Your task to perform on an android device: Go to Yahoo.com Image 0: 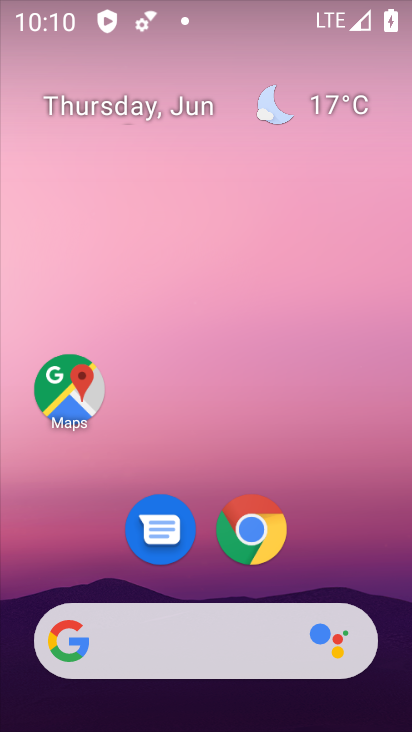
Step 0: click (243, 532)
Your task to perform on an android device: Go to Yahoo.com Image 1: 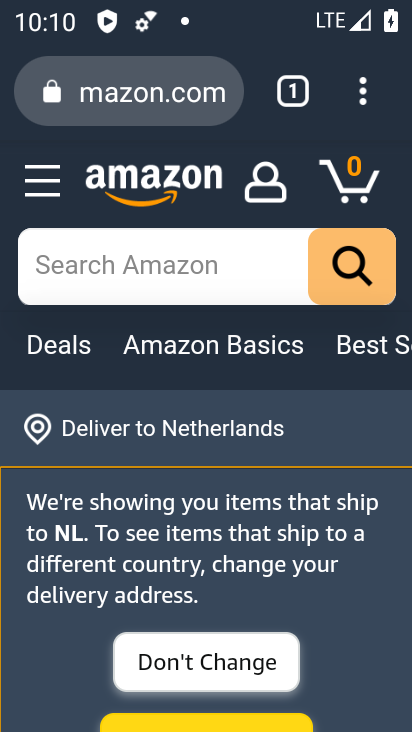
Step 1: click (179, 92)
Your task to perform on an android device: Go to Yahoo.com Image 2: 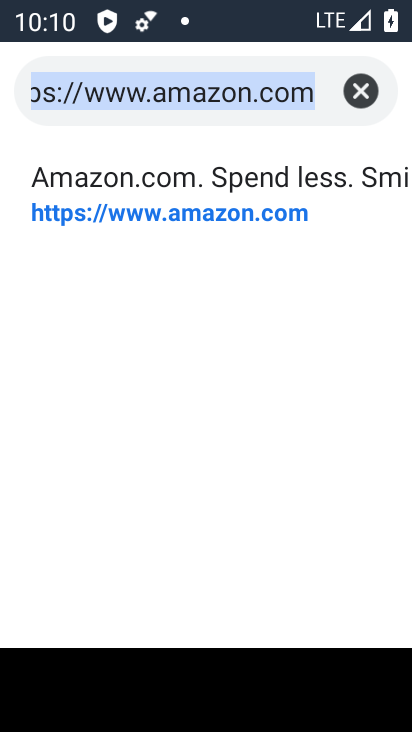
Step 2: type "yahoo.com"
Your task to perform on an android device: Go to Yahoo.com Image 3: 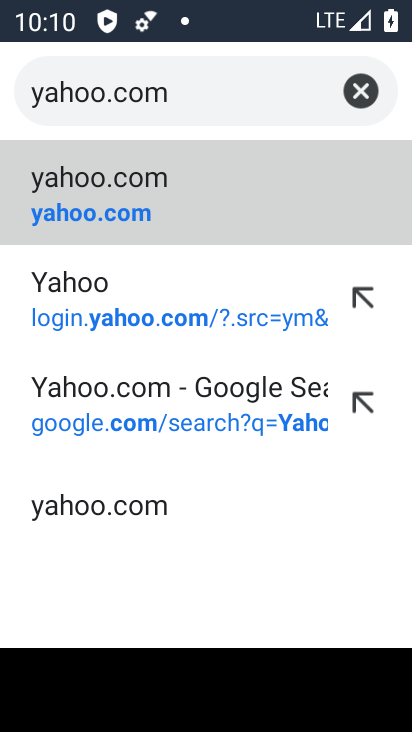
Step 3: click (109, 207)
Your task to perform on an android device: Go to Yahoo.com Image 4: 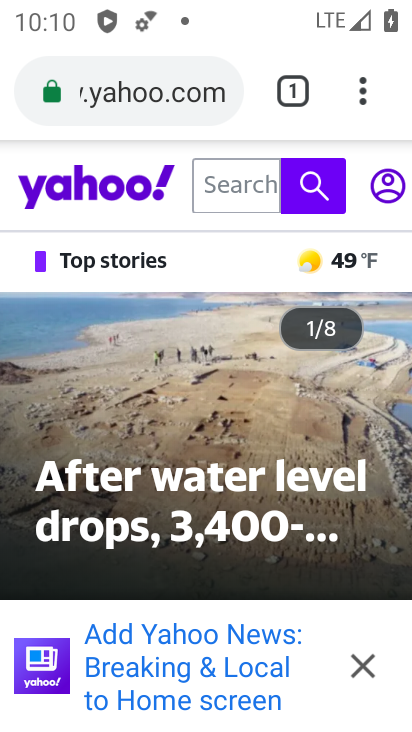
Step 4: task complete